Your task to perform on an android device: Is it going to rain this weekend? Image 0: 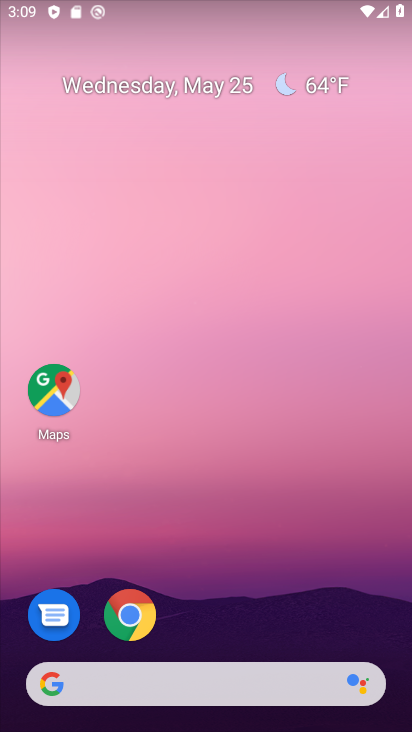
Step 0: click (317, 89)
Your task to perform on an android device: Is it going to rain this weekend? Image 1: 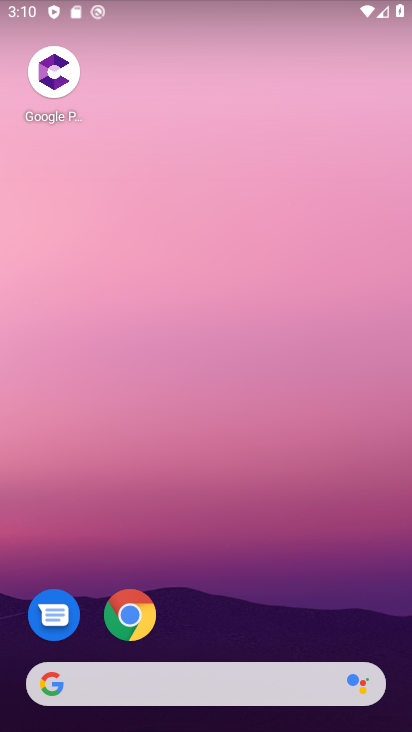
Step 1: drag from (28, 220) to (407, 127)
Your task to perform on an android device: Is it going to rain this weekend? Image 2: 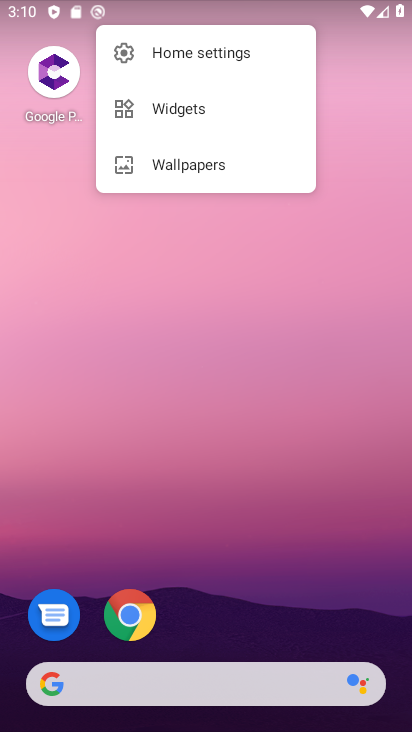
Step 2: click (162, 295)
Your task to perform on an android device: Is it going to rain this weekend? Image 3: 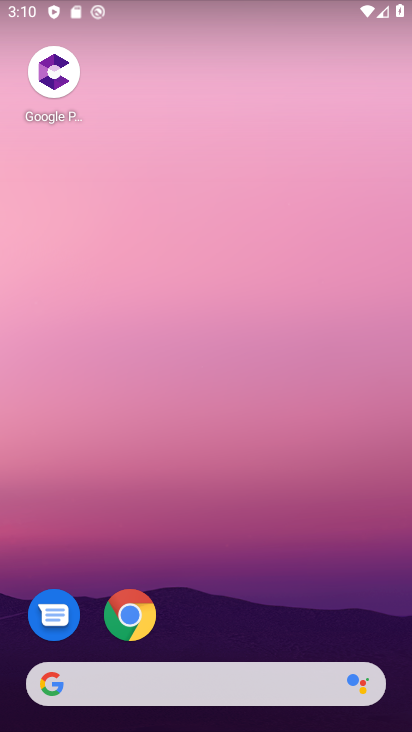
Step 3: drag from (10, 273) to (397, 27)
Your task to perform on an android device: Is it going to rain this weekend? Image 4: 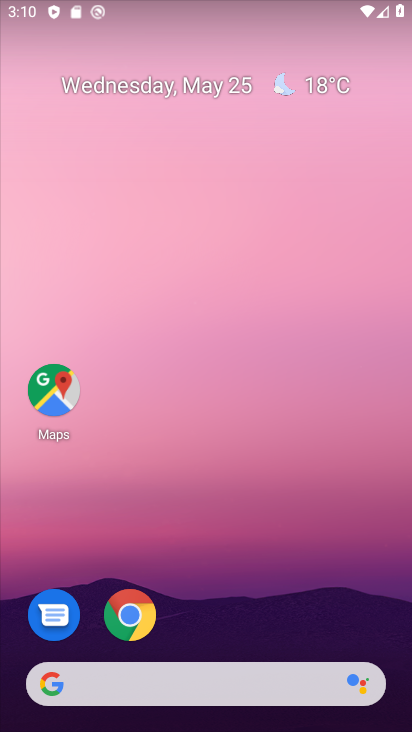
Step 4: click (323, 85)
Your task to perform on an android device: Is it going to rain this weekend? Image 5: 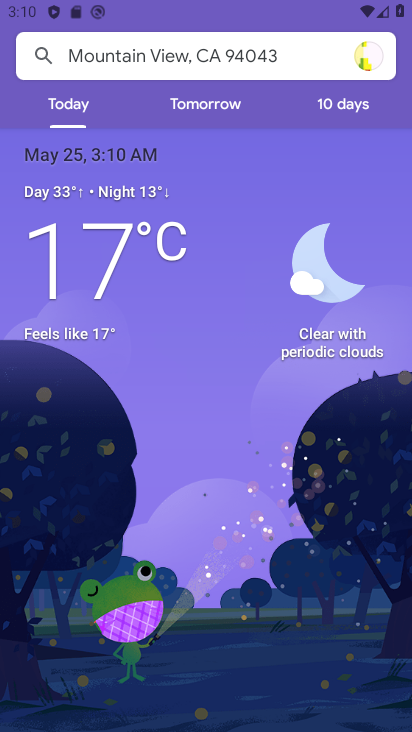
Step 5: click (337, 99)
Your task to perform on an android device: Is it going to rain this weekend? Image 6: 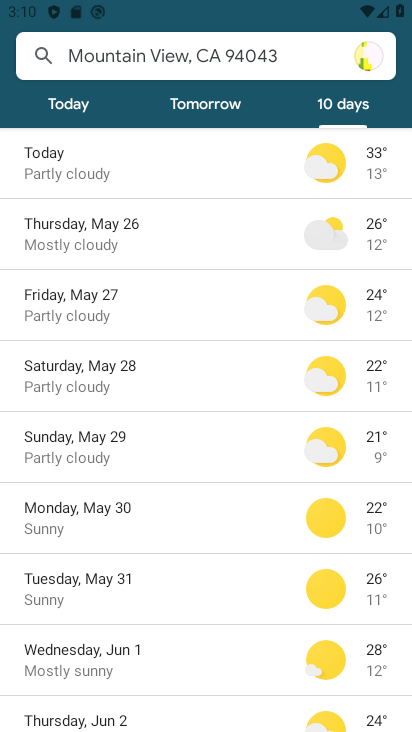
Step 6: task complete